Your task to perform on an android device: open app "Microsoft Excel" Image 0: 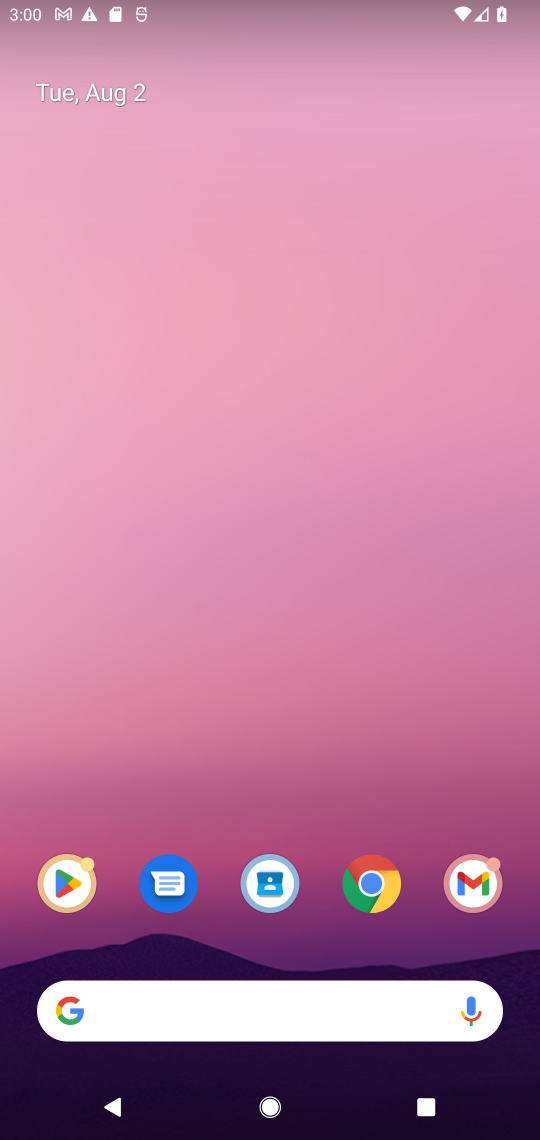
Step 0: press home button
Your task to perform on an android device: open app "Microsoft Excel" Image 1: 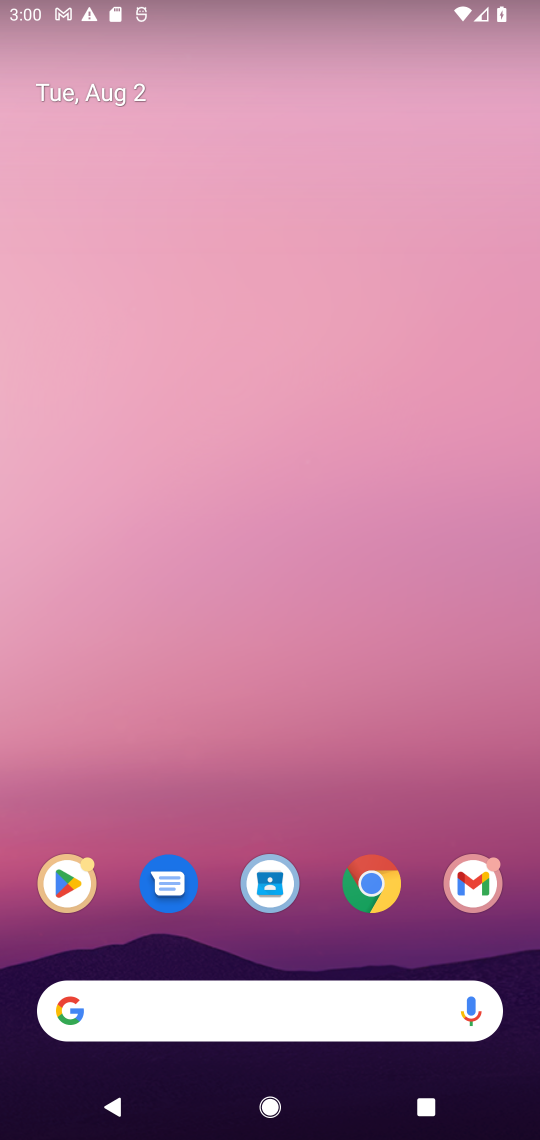
Step 1: click (47, 902)
Your task to perform on an android device: open app "Microsoft Excel" Image 2: 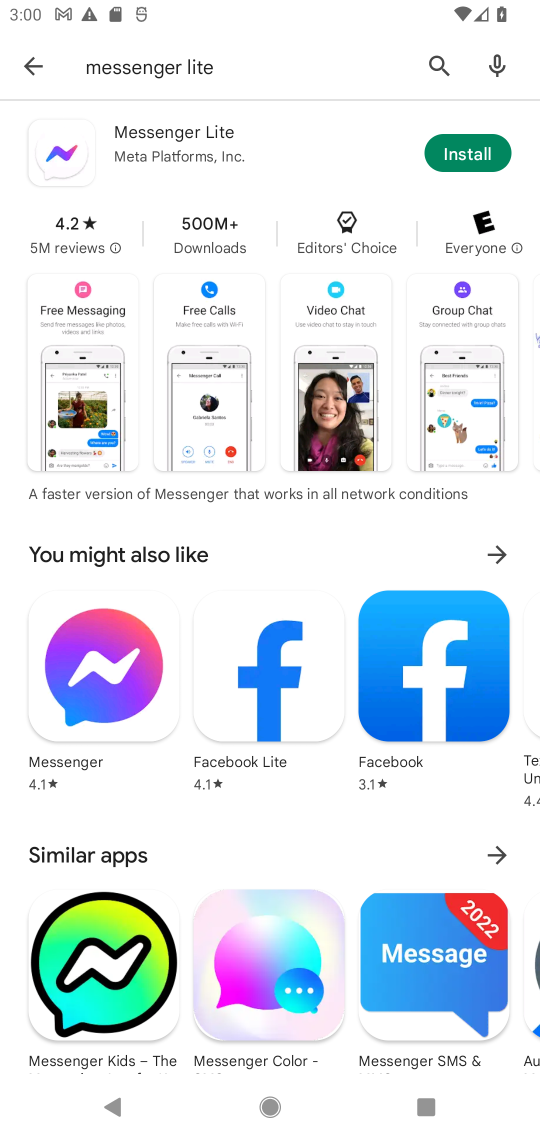
Step 2: click (452, 62)
Your task to perform on an android device: open app "Microsoft Excel" Image 3: 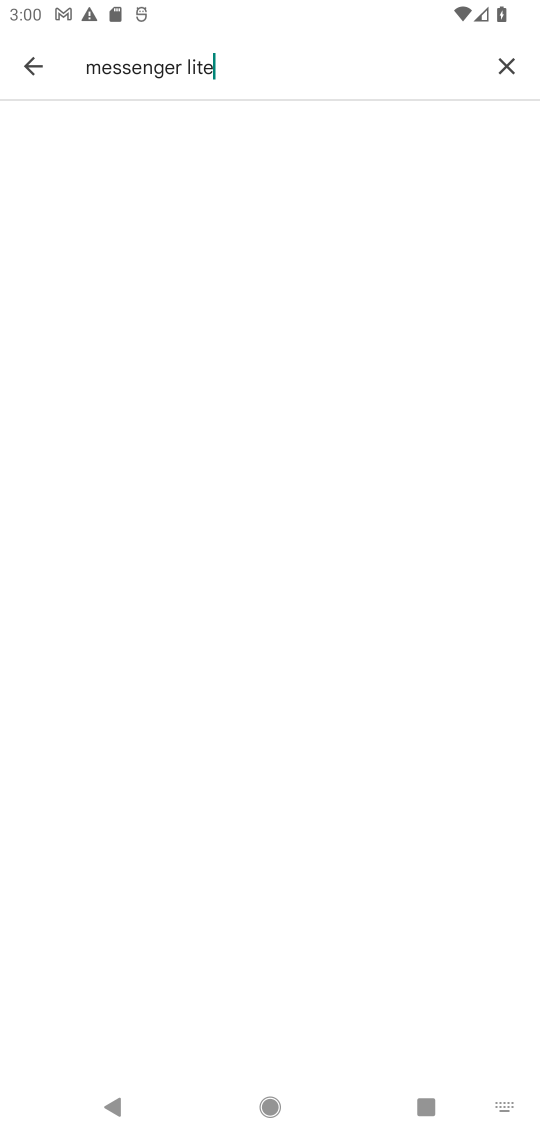
Step 3: click (489, 59)
Your task to perform on an android device: open app "Microsoft Excel" Image 4: 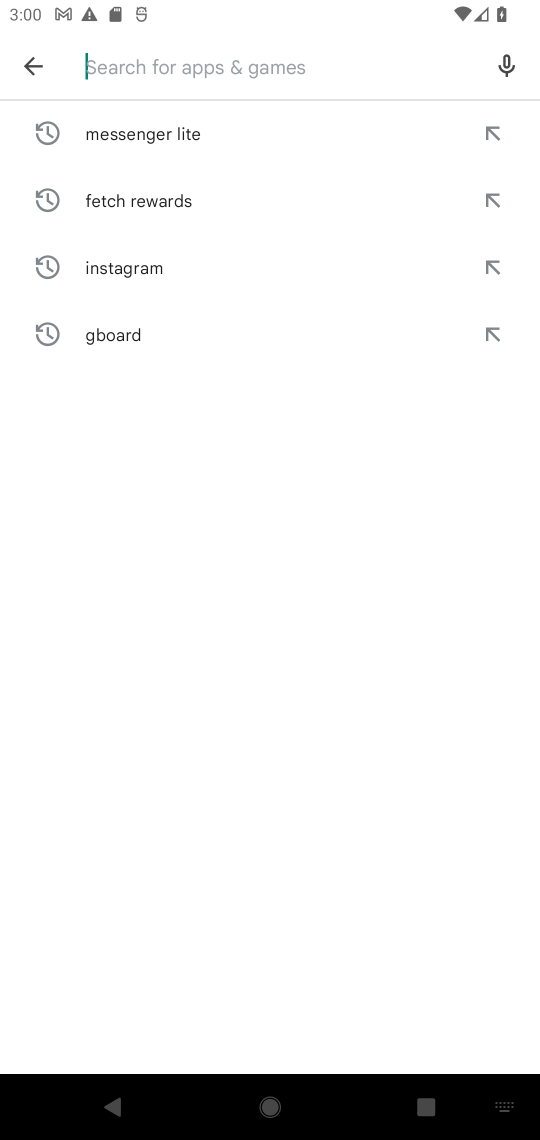
Step 4: type "Microsoft Excel""
Your task to perform on an android device: open app "Microsoft Excel" Image 5: 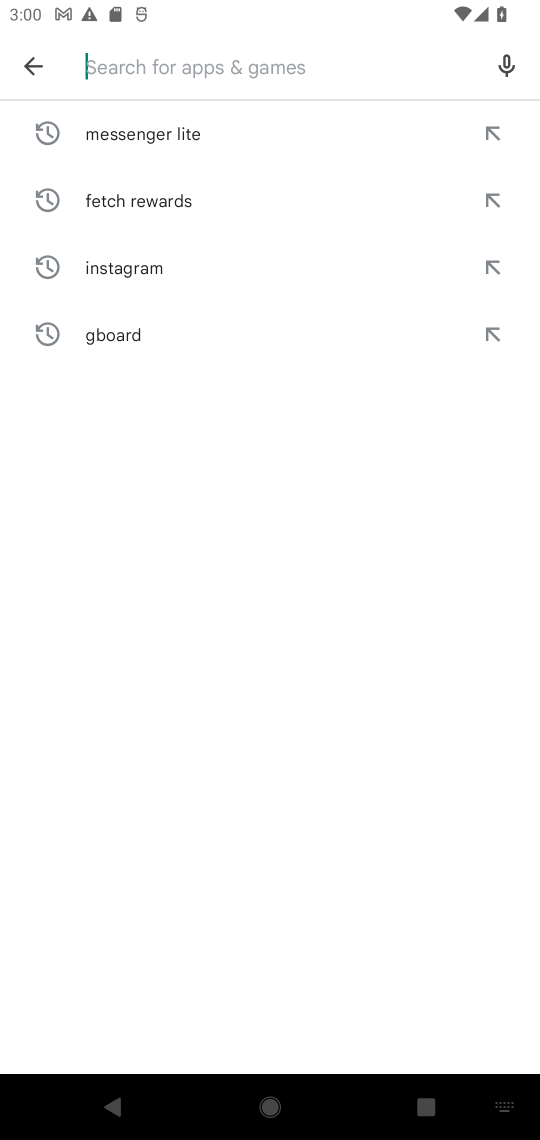
Step 5: type "Microsoft Excel"
Your task to perform on an android device: open app "Microsoft Excel" Image 6: 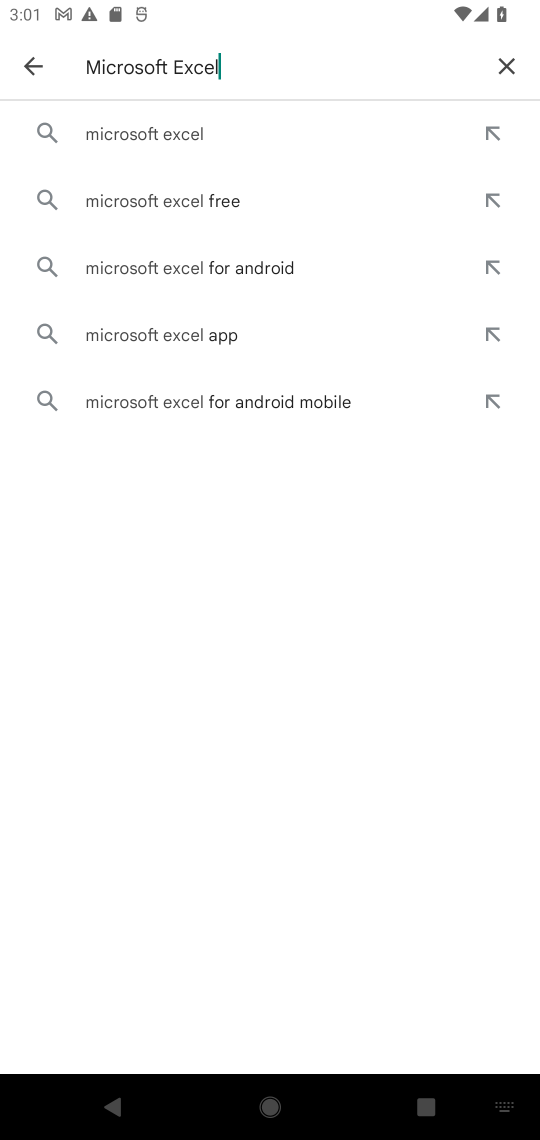
Step 6: click (125, 147)
Your task to perform on an android device: open app "Microsoft Excel" Image 7: 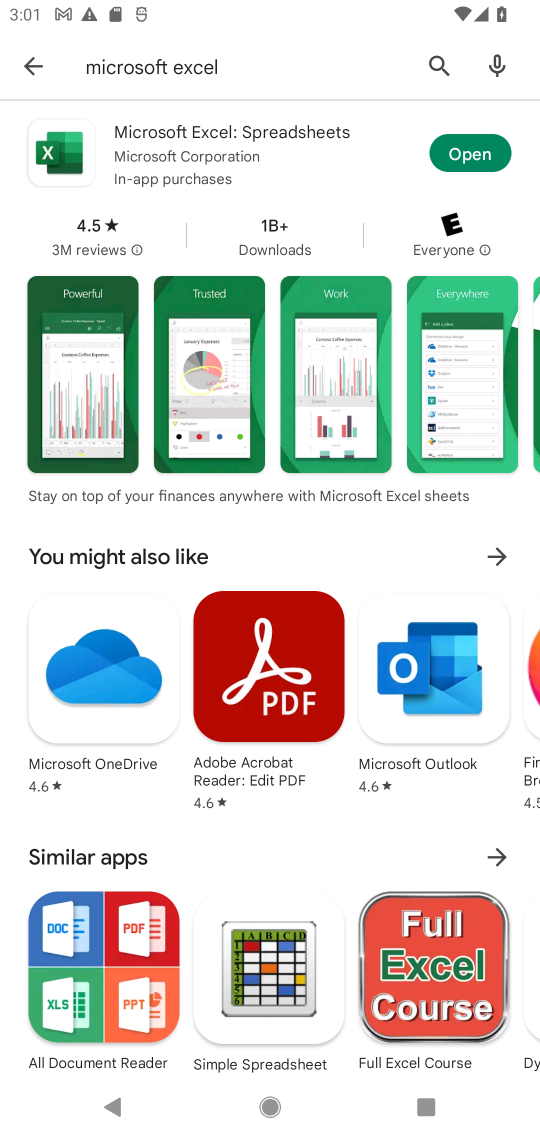
Step 7: click (456, 163)
Your task to perform on an android device: open app "Microsoft Excel" Image 8: 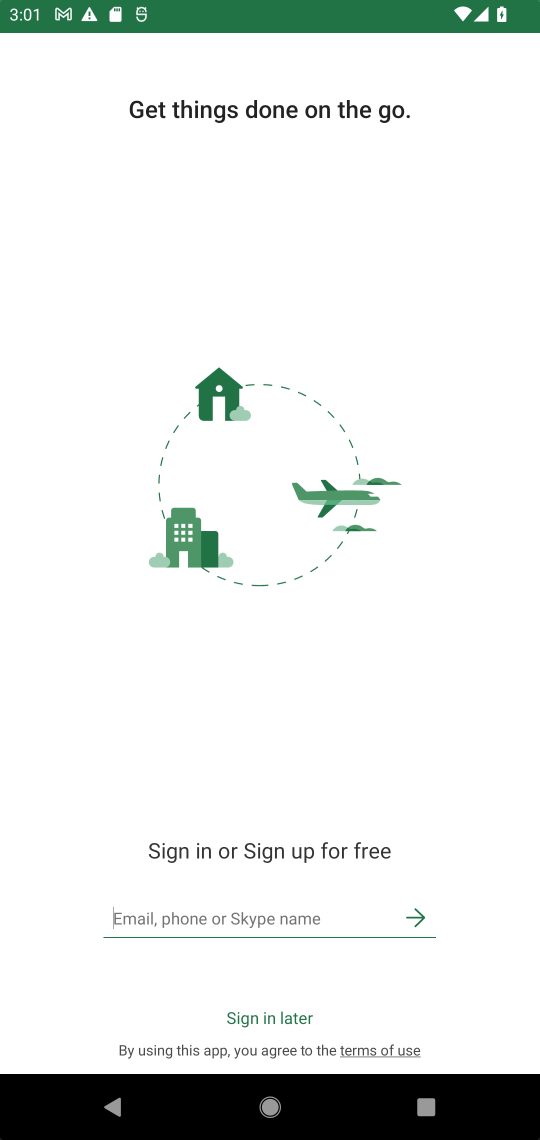
Step 8: task complete